Your task to perform on an android device: Play the last video I watched on Youtube Image 0: 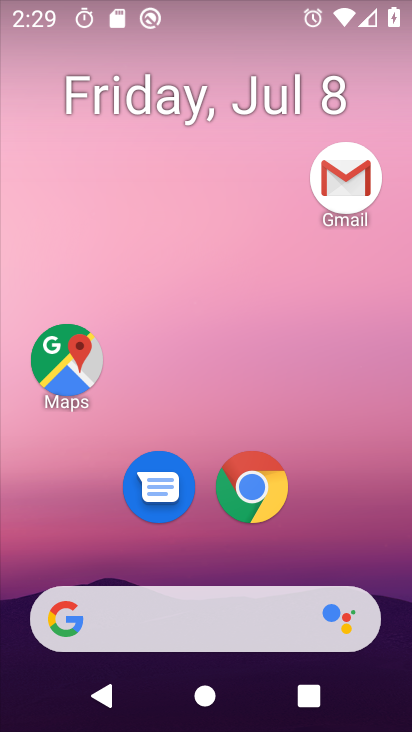
Step 0: drag from (353, 530) to (363, 148)
Your task to perform on an android device: Play the last video I watched on Youtube Image 1: 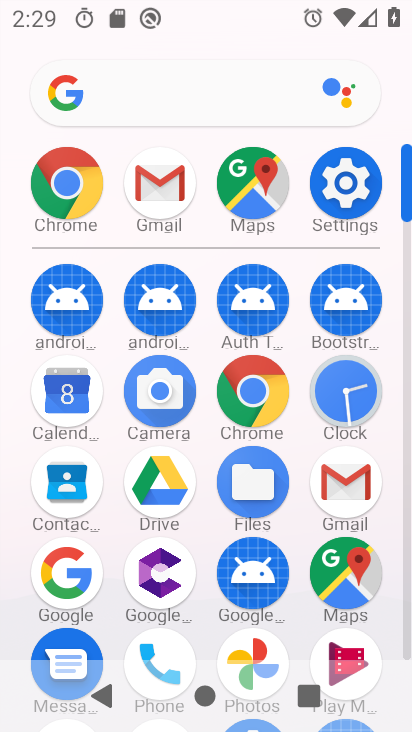
Step 1: drag from (385, 542) to (409, 268)
Your task to perform on an android device: Play the last video I watched on Youtube Image 2: 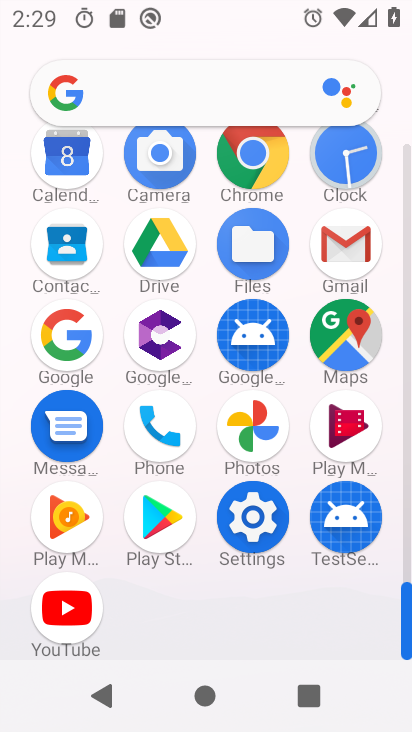
Step 2: click (73, 618)
Your task to perform on an android device: Play the last video I watched on Youtube Image 3: 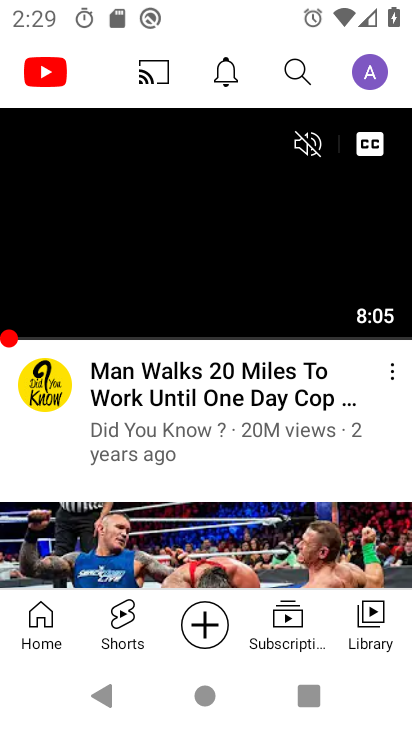
Step 3: click (377, 632)
Your task to perform on an android device: Play the last video I watched on Youtube Image 4: 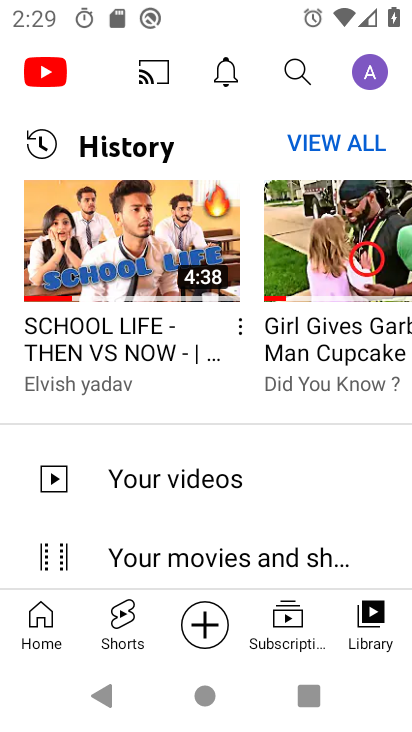
Step 4: click (116, 265)
Your task to perform on an android device: Play the last video I watched on Youtube Image 5: 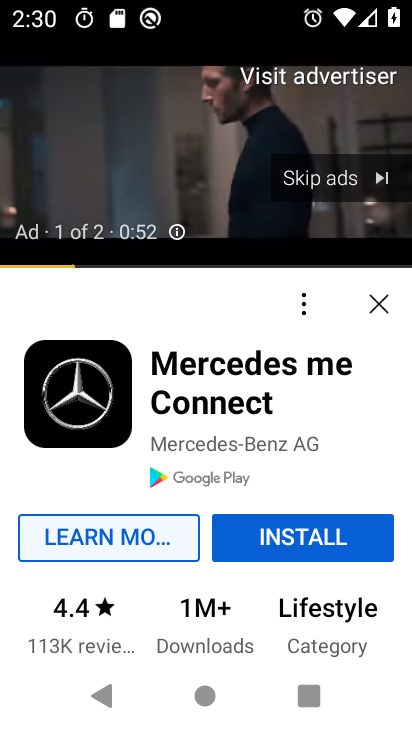
Step 5: task complete